Your task to perform on an android device: Open battery settings Image 0: 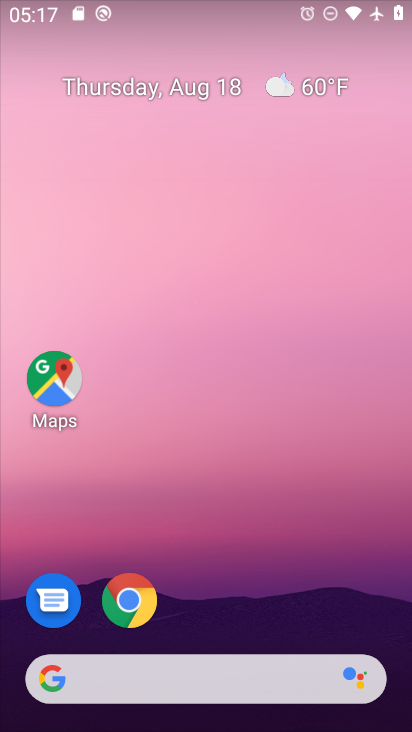
Step 0: press home button
Your task to perform on an android device: Open battery settings Image 1: 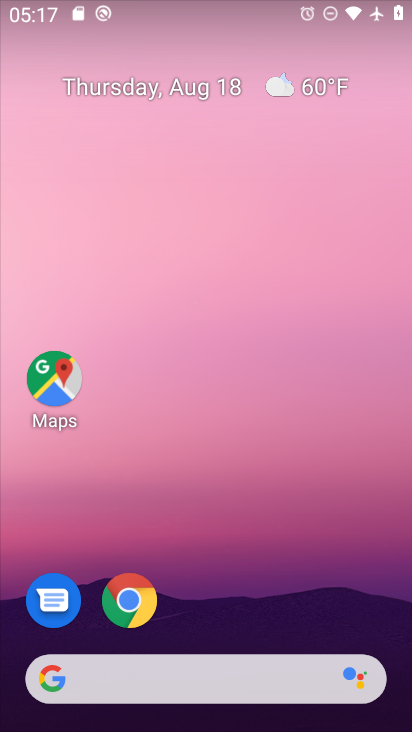
Step 1: drag from (278, 621) to (244, 0)
Your task to perform on an android device: Open battery settings Image 2: 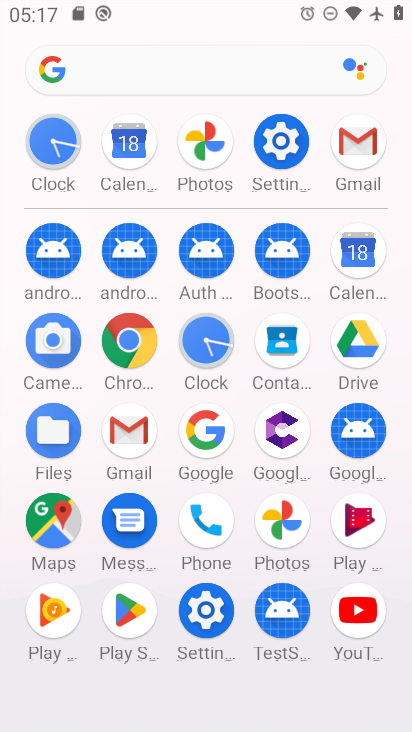
Step 2: click (273, 149)
Your task to perform on an android device: Open battery settings Image 3: 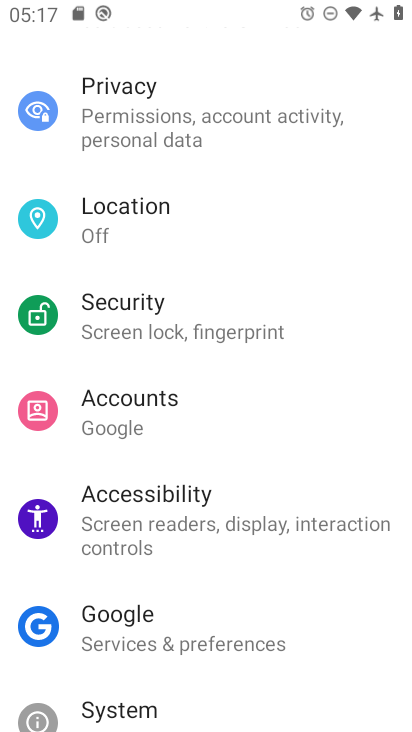
Step 3: drag from (273, 149) to (324, 695)
Your task to perform on an android device: Open battery settings Image 4: 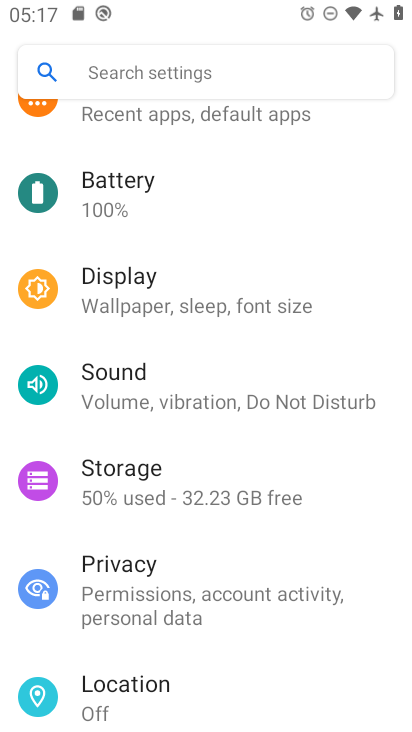
Step 4: click (114, 197)
Your task to perform on an android device: Open battery settings Image 5: 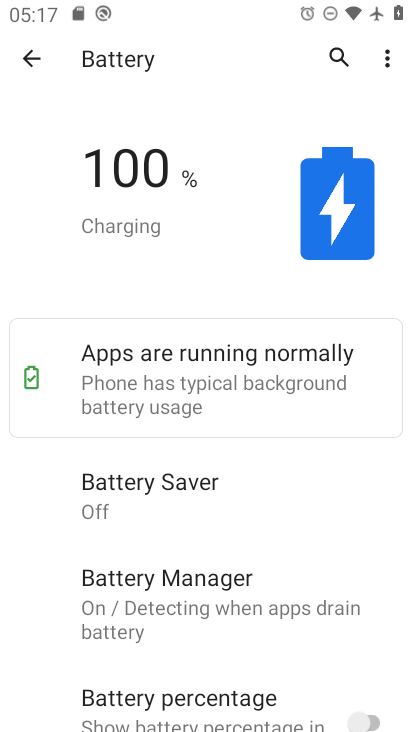
Step 5: task complete